Your task to perform on an android device: allow notifications from all sites in the chrome app Image 0: 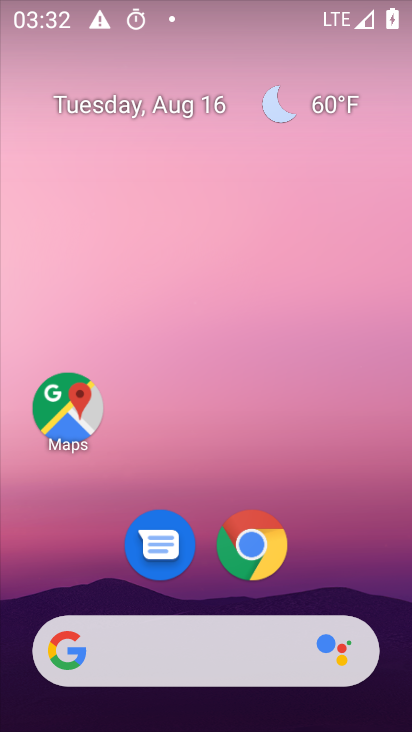
Step 0: drag from (202, 622) to (190, 170)
Your task to perform on an android device: allow notifications from all sites in the chrome app Image 1: 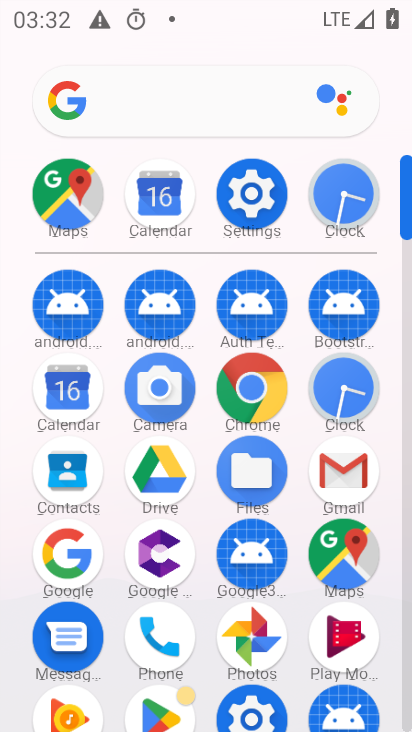
Step 1: click (257, 391)
Your task to perform on an android device: allow notifications from all sites in the chrome app Image 2: 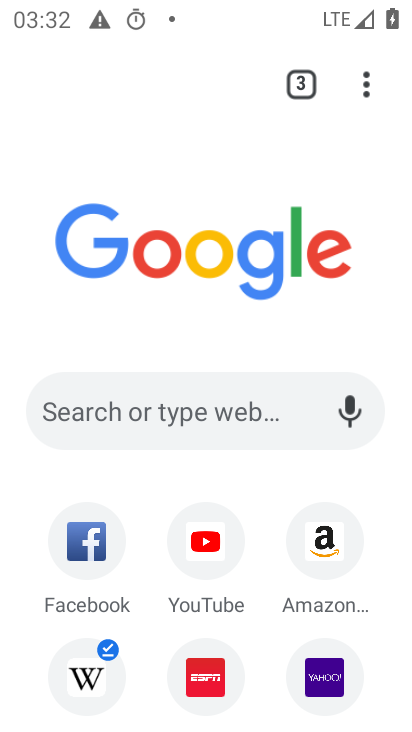
Step 2: click (364, 81)
Your task to perform on an android device: allow notifications from all sites in the chrome app Image 3: 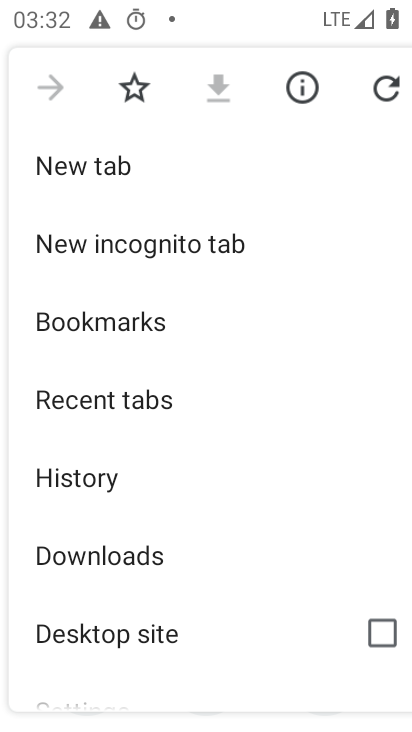
Step 3: drag from (104, 669) to (122, 224)
Your task to perform on an android device: allow notifications from all sites in the chrome app Image 4: 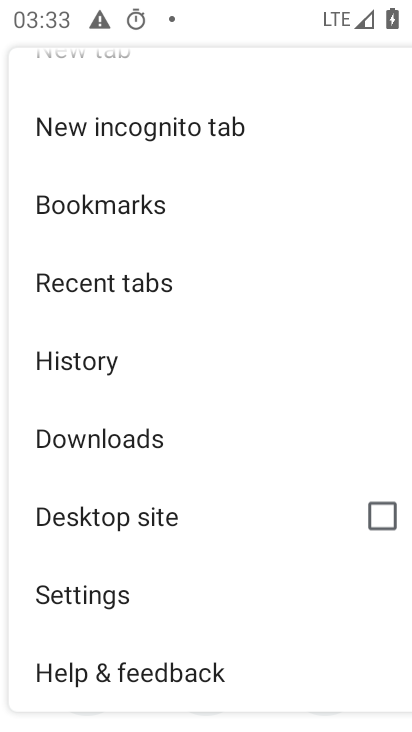
Step 4: click (96, 589)
Your task to perform on an android device: allow notifications from all sites in the chrome app Image 5: 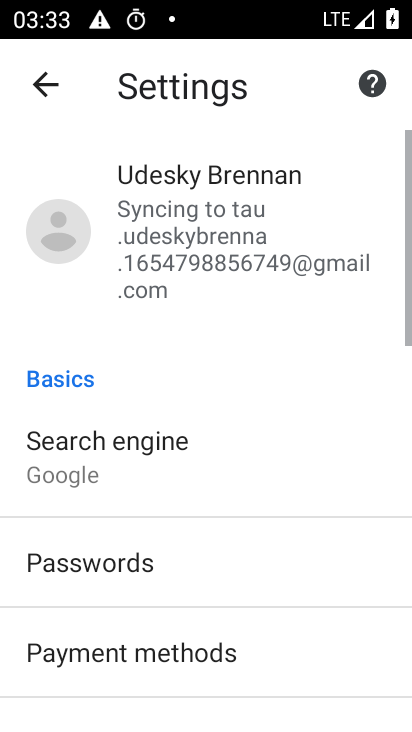
Step 5: drag from (180, 659) to (188, 301)
Your task to perform on an android device: allow notifications from all sites in the chrome app Image 6: 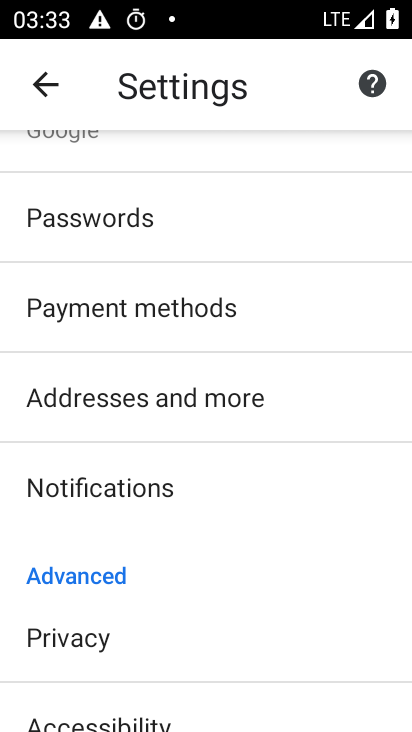
Step 6: drag from (121, 695) to (140, 343)
Your task to perform on an android device: allow notifications from all sites in the chrome app Image 7: 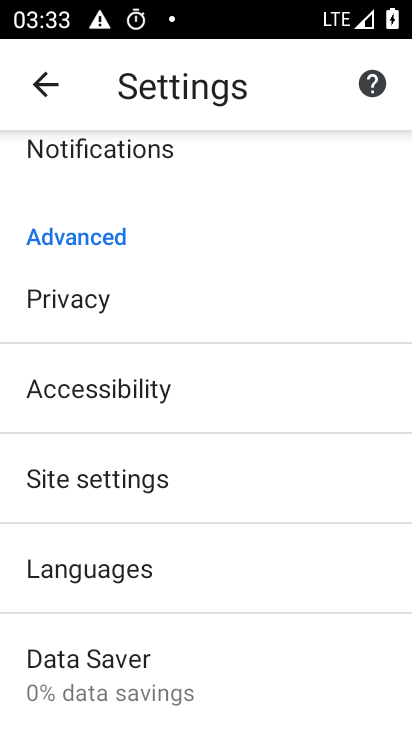
Step 7: click (57, 481)
Your task to perform on an android device: allow notifications from all sites in the chrome app Image 8: 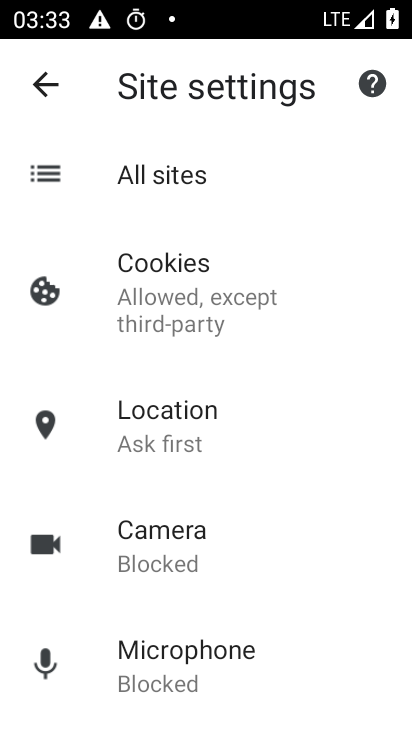
Step 8: drag from (161, 663) to (165, 303)
Your task to perform on an android device: allow notifications from all sites in the chrome app Image 9: 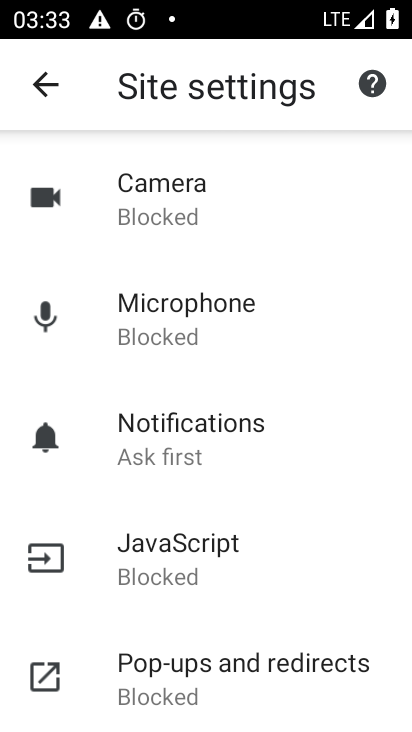
Step 9: click (156, 426)
Your task to perform on an android device: allow notifications from all sites in the chrome app Image 10: 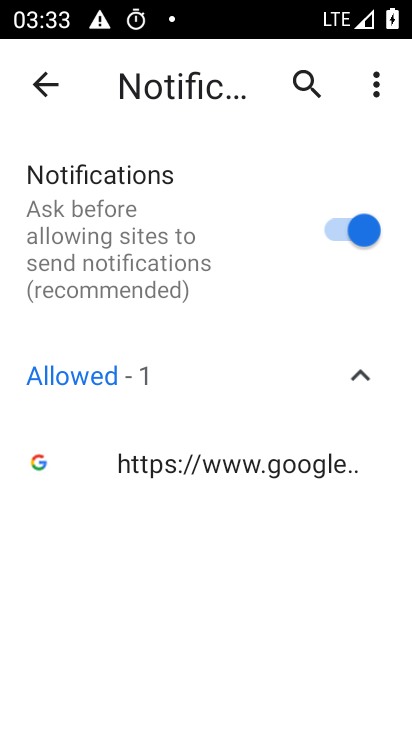
Step 10: task complete